Your task to perform on an android device: stop showing notifications on the lock screen Image 0: 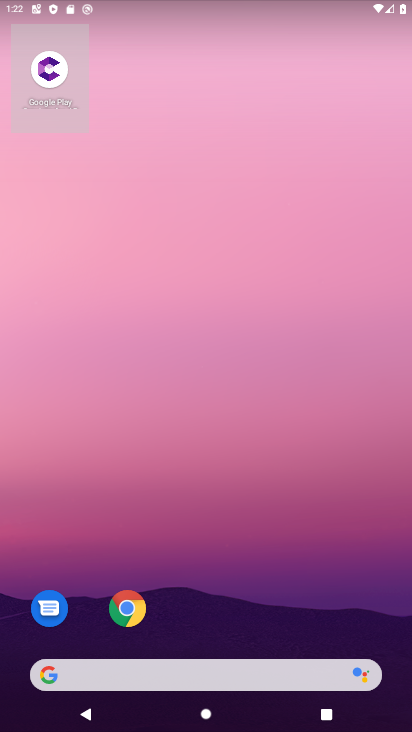
Step 0: drag from (274, 581) to (356, 247)
Your task to perform on an android device: stop showing notifications on the lock screen Image 1: 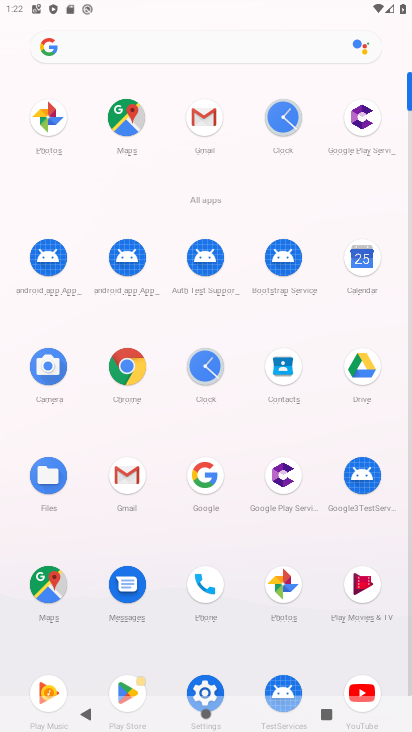
Step 1: click (208, 677)
Your task to perform on an android device: stop showing notifications on the lock screen Image 2: 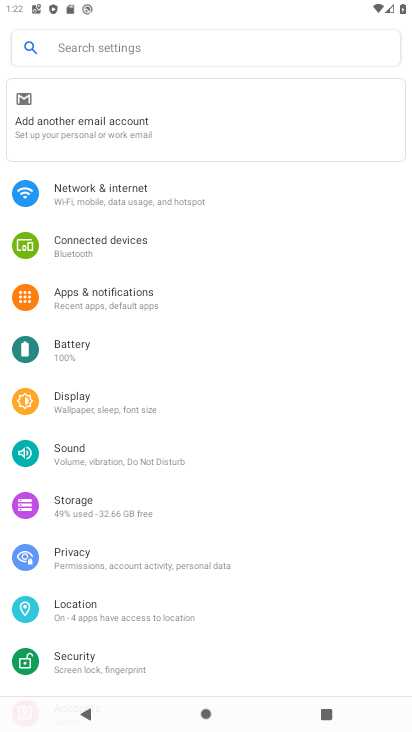
Step 2: click (115, 612)
Your task to perform on an android device: stop showing notifications on the lock screen Image 3: 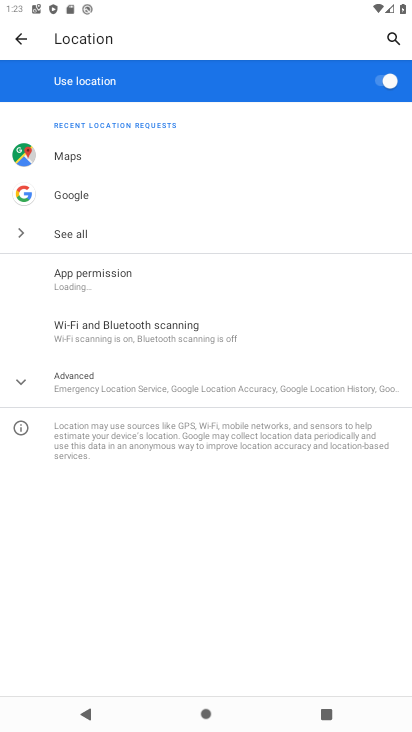
Step 3: task complete